Your task to perform on an android device: turn notification dots off Image 0: 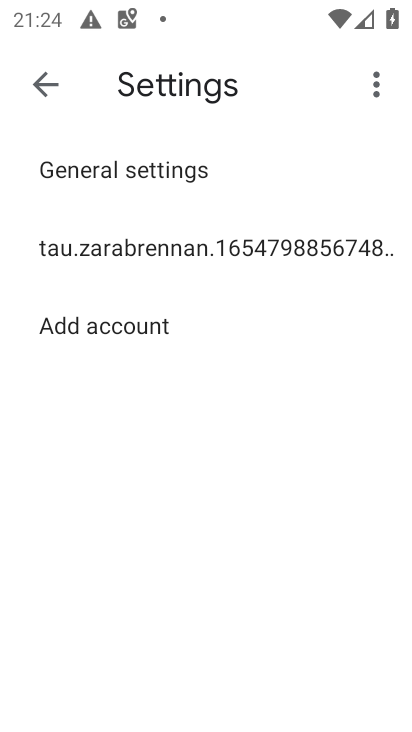
Step 0: press home button
Your task to perform on an android device: turn notification dots off Image 1: 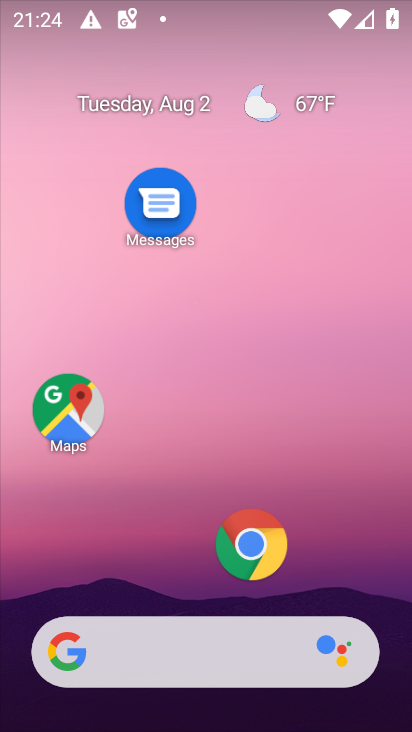
Step 1: drag from (196, 534) to (213, 188)
Your task to perform on an android device: turn notification dots off Image 2: 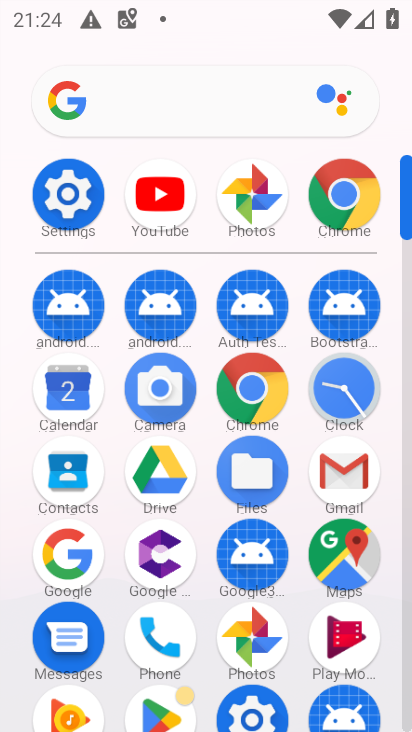
Step 2: click (88, 216)
Your task to perform on an android device: turn notification dots off Image 3: 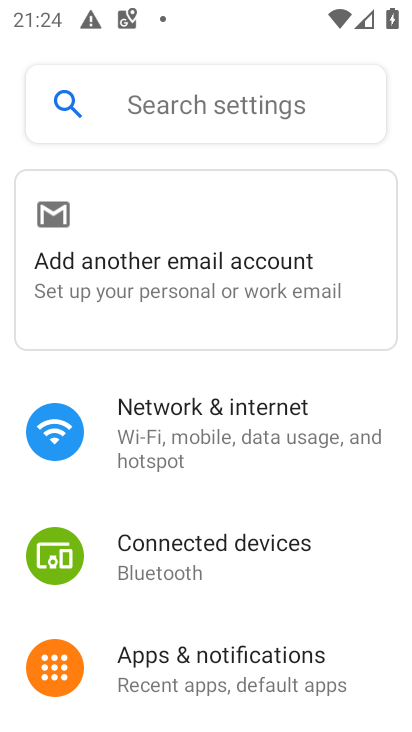
Step 3: click (210, 656)
Your task to perform on an android device: turn notification dots off Image 4: 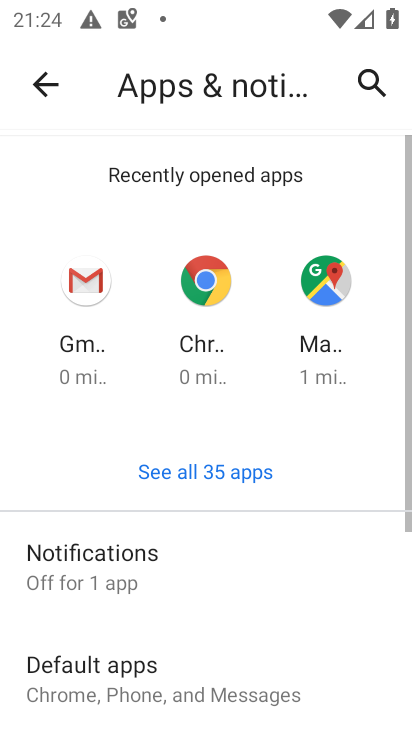
Step 4: click (188, 556)
Your task to perform on an android device: turn notification dots off Image 5: 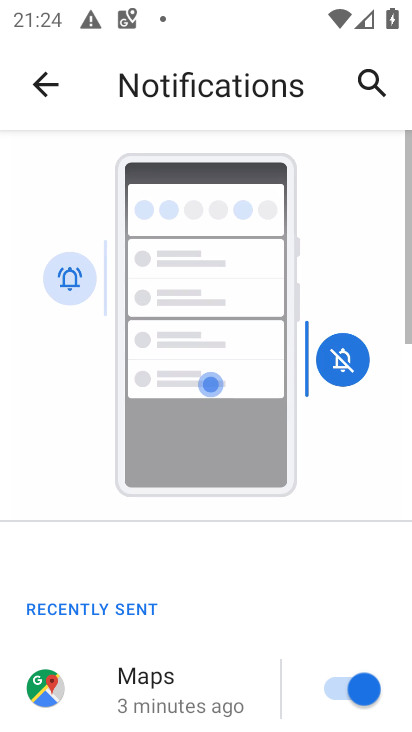
Step 5: drag from (196, 665) to (215, 186)
Your task to perform on an android device: turn notification dots off Image 6: 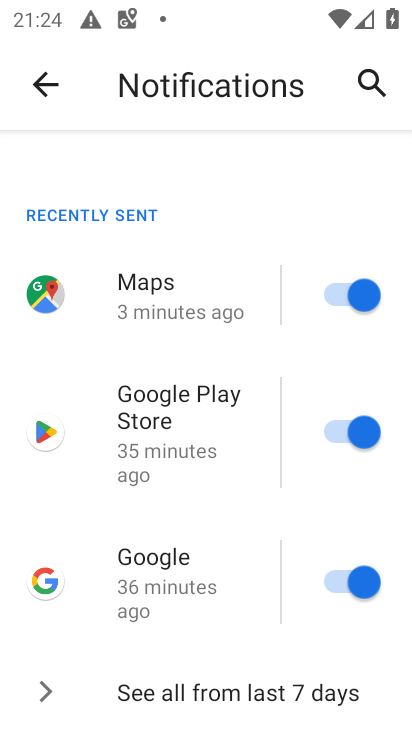
Step 6: drag from (262, 651) to (256, 241)
Your task to perform on an android device: turn notification dots off Image 7: 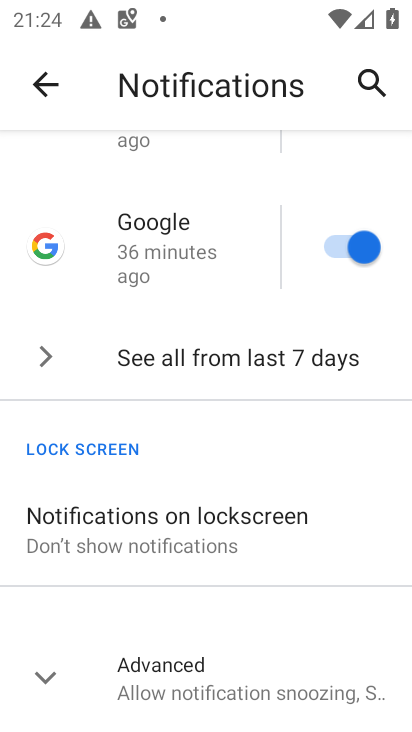
Step 7: drag from (246, 643) to (243, 339)
Your task to perform on an android device: turn notification dots off Image 8: 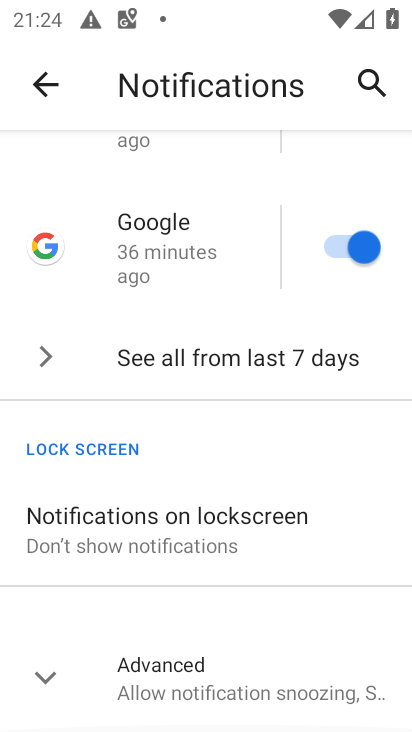
Step 8: click (233, 669)
Your task to perform on an android device: turn notification dots off Image 9: 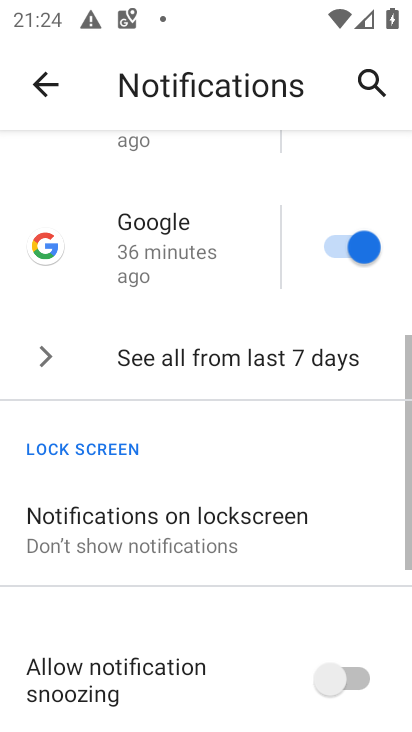
Step 9: drag from (242, 649) to (253, 203)
Your task to perform on an android device: turn notification dots off Image 10: 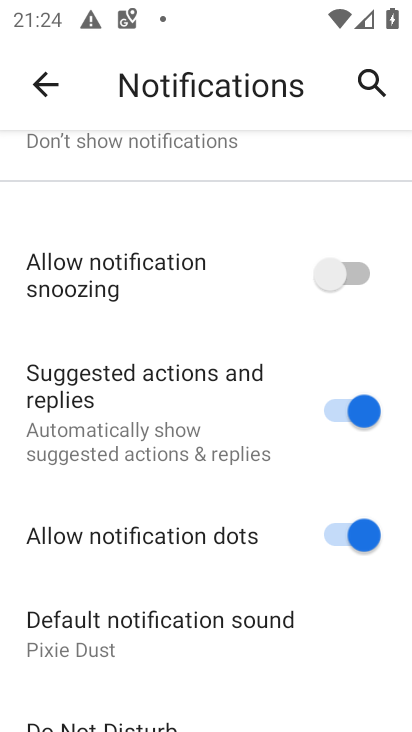
Step 10: click (332, 536)
Your task to perform on an android device: turn notification dots off Image 11: 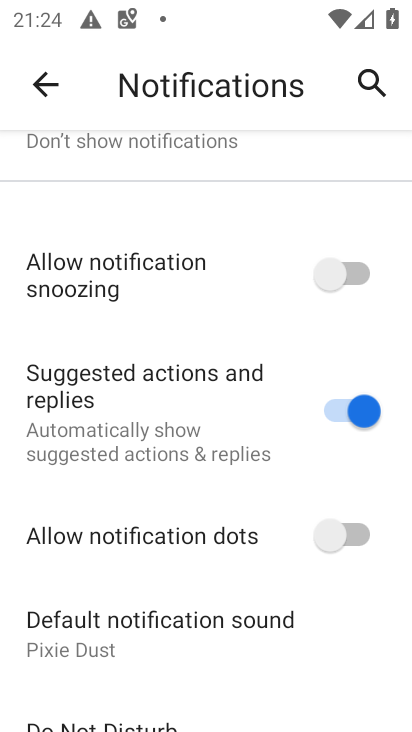
Step 11: task complete